Your task to perform on an android device: Open accessibility settings Image 0: 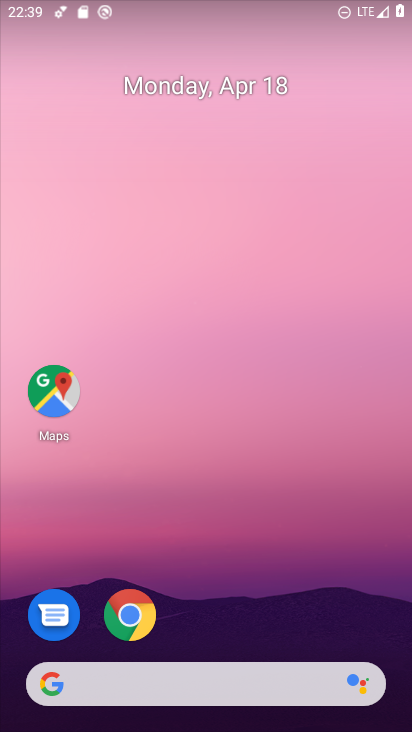
Step 0: drag from (361, 633) to (332, 13)
Your task to perform on an android device: Open accessibility settings Image 1: 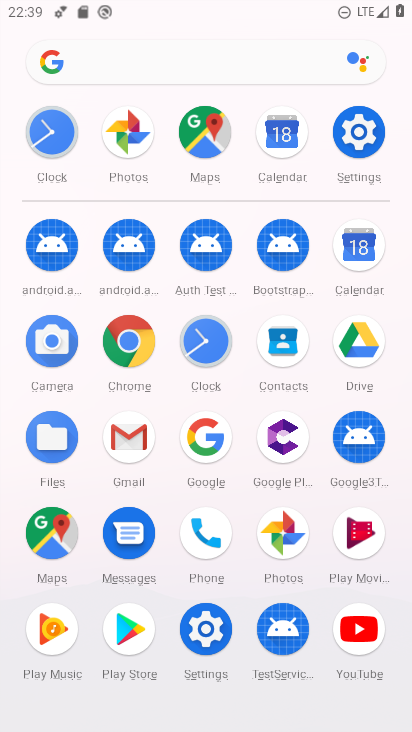
Step 1: click (363, 148)
Your task to perform on an android device: Open accessibility settings Image 2: 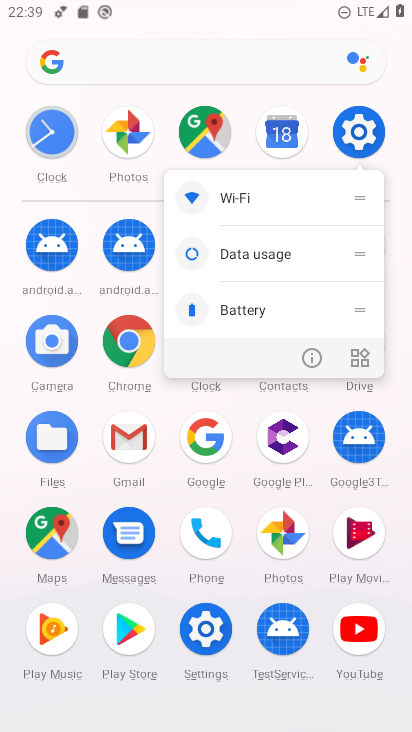
Step 2: click (359, 132)
Your task to perform on an android device: Open accessibility settings Image 3: 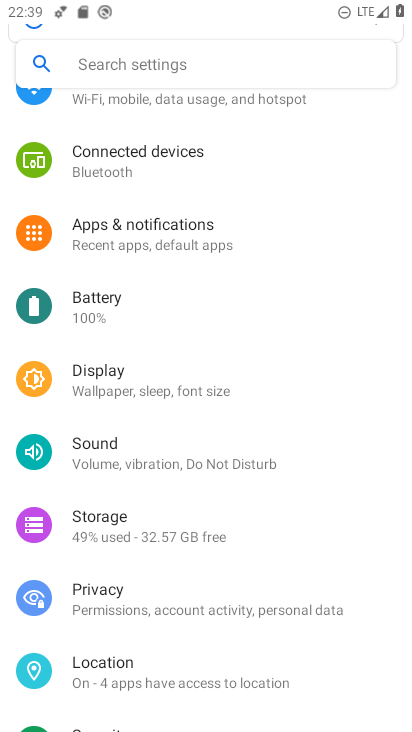
Step 3: drag from (284, 349) to (256, 146)
Your task to perform on an android device: Open accessibility settings Image 4: 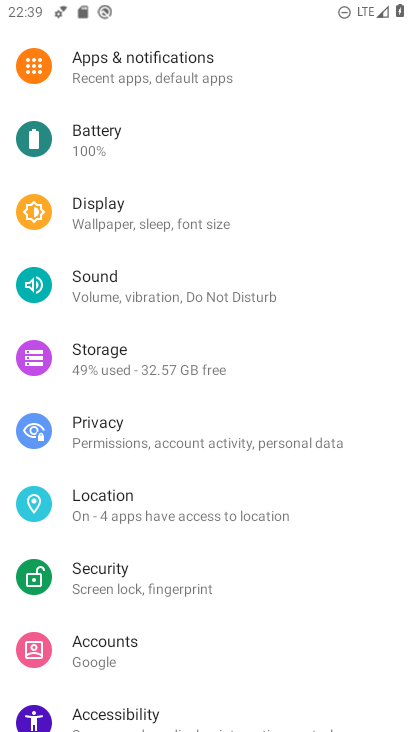
Step 4: click (125, 712)
Your task to perform on an android device: Open accessibility settings Image 5: 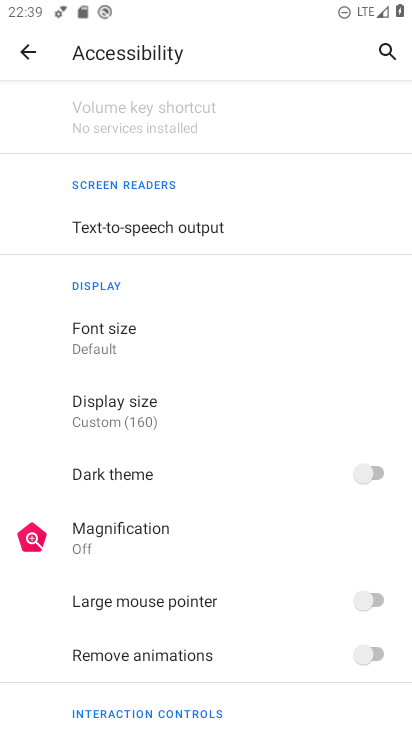
Step 5: task complete